Your task to perform on an android device: stop showing notifications on the lock screen Image 0: 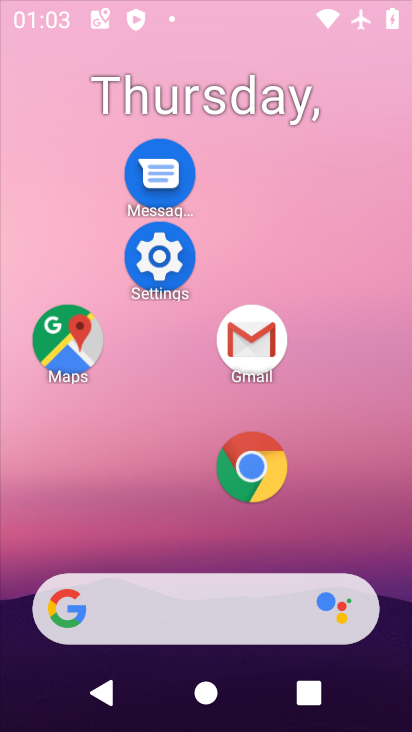
Step 0: click (237, 141)
Your task to perform on an android device: stop showing notifications on the lock screen Image 1: 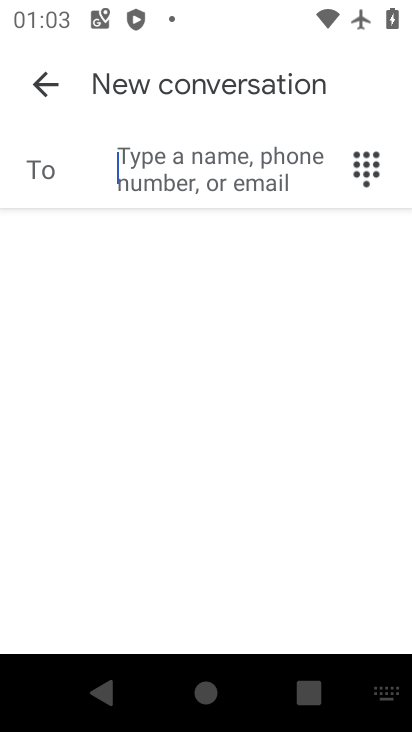
Step 1: drag from (202, 555) to (272, 248)
Your task to perform on an android device: stop showing notifications on the lock screen Image 2: 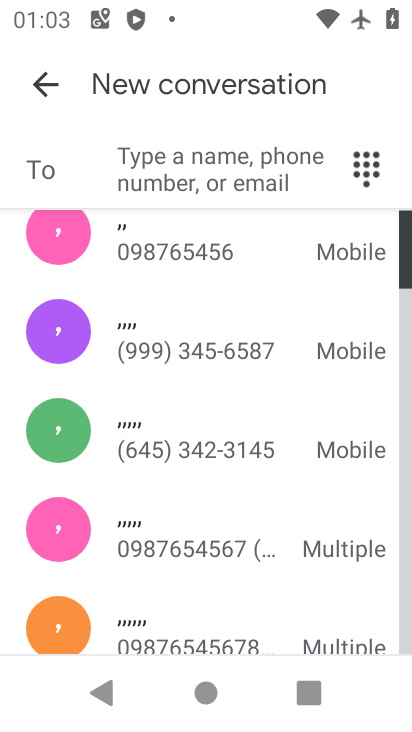
Step 2: press home button
Your task to perform on an android device: stop showing notifications on the lock screen Image 3: 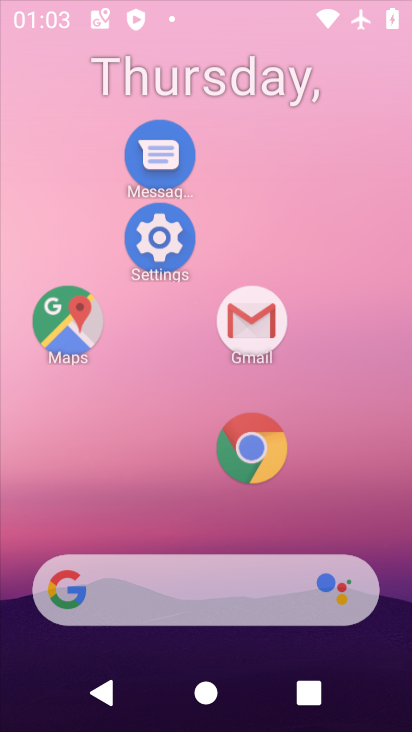
Step 3: drag from (190, 605) to (232, 174)
Your task to perform on an android device: stop showing notifications on the lock screen Image 4: 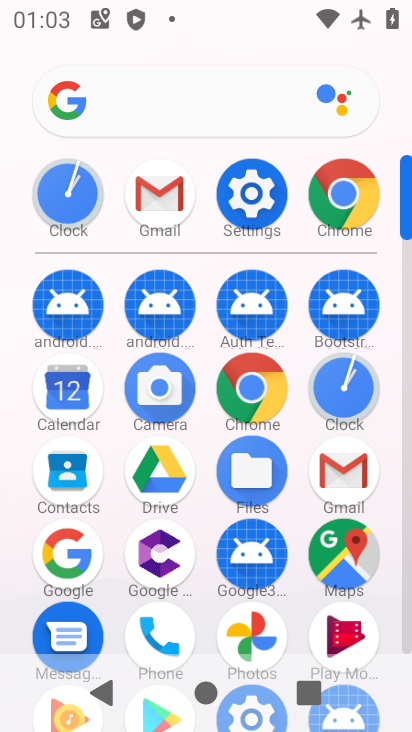
Step 4: click (244, 174)
Your task to perform on an android device: stop showing notifications on the lock screen Image 5: 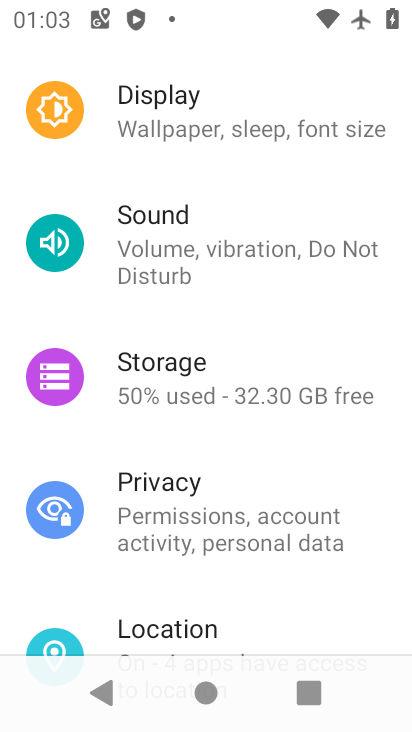
Step 5: click (187, 141)
Your task to perform on an android device: stop showing notifications on the lock screen Image 6: 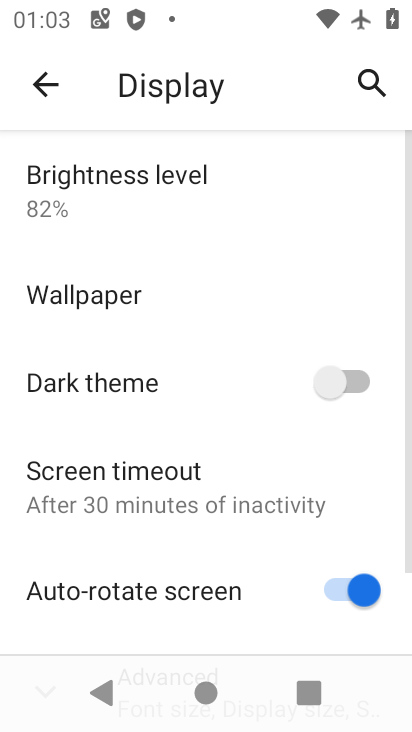
Step 6: click (168, 484)
Your task to perform on an android device: stop showing notifications on the lock screen Image 7: 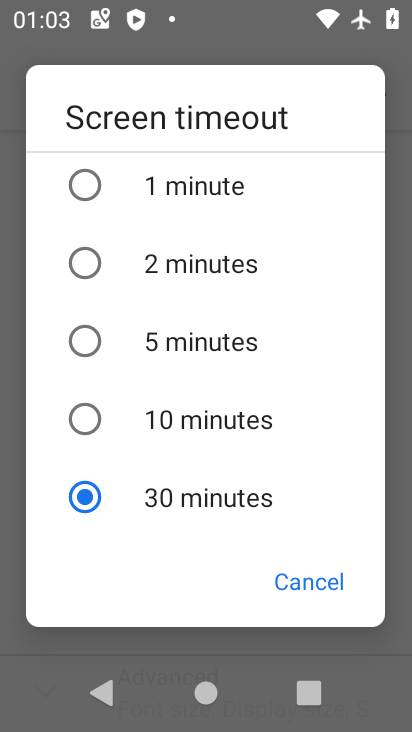
Step 7: press back button
Your task to perform on an android device: stop showing notifications on the lock screen Image 8: 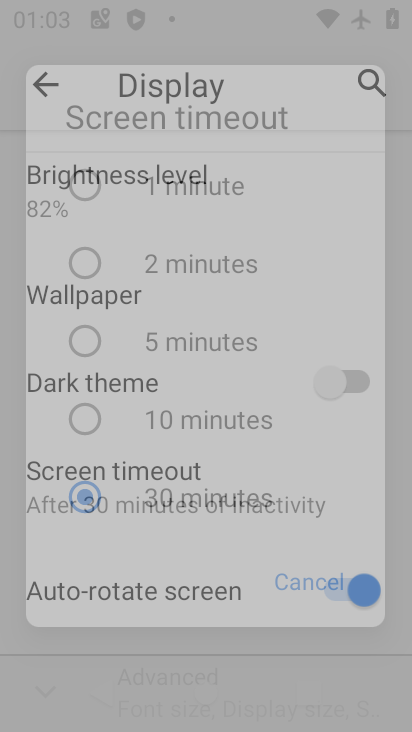
Step 8: press home button
Your task to perform on an android device: stop showing notifications on the lock screen Image 9: 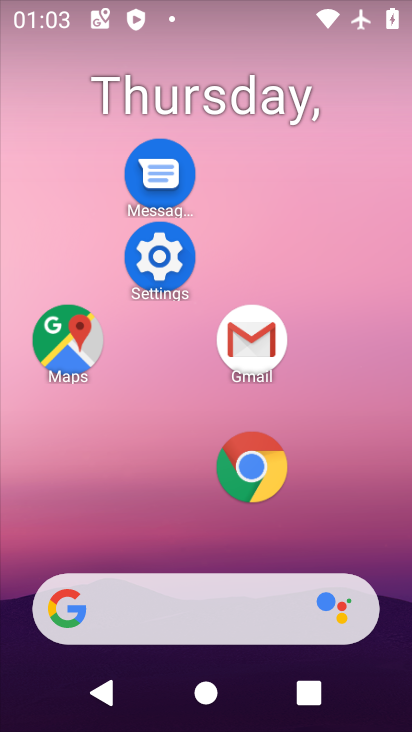
Step 9: click (158, 262)
Your task to perform on an android device: stop showing notifications on the lock screen Image 10: 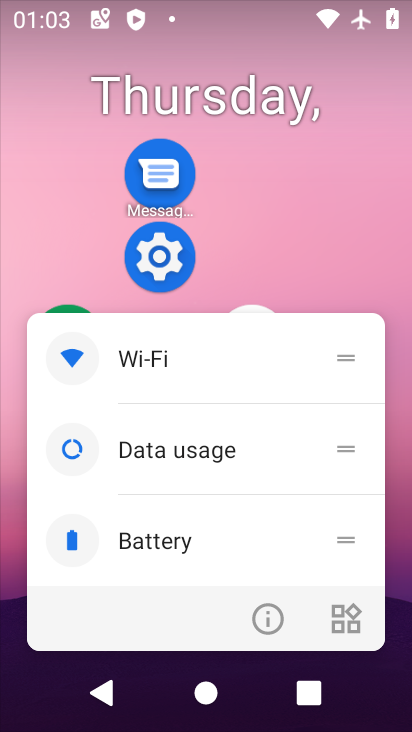
Step 10: click (270, 624)
Your task to perform on an android device: stop showing notifications on the lock screen Image 11: 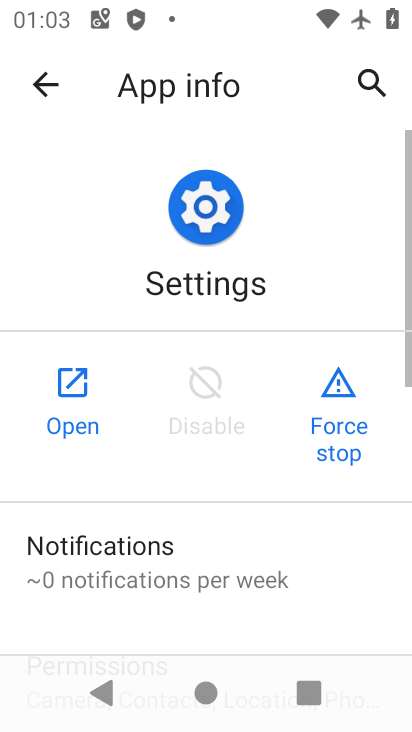
Step 11: drag from (199, 522) to (225, 261)
Your task to perform on an android device: stop showing notifications on the lock screen Image 12: 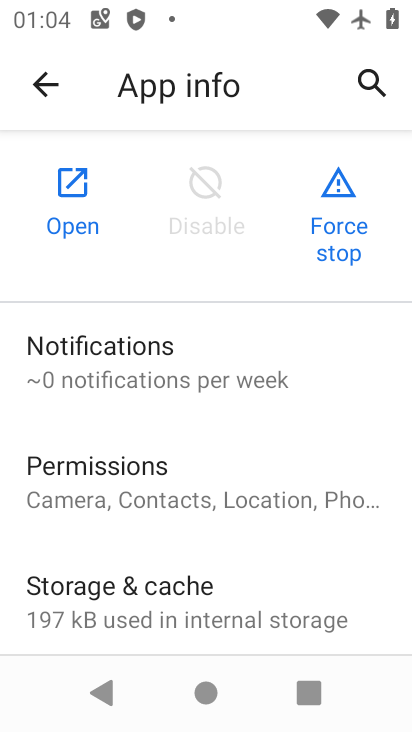
Step 12: click (82, 199)
Your task to perform on an android device: stop showing notifications on the lock screen Image 13: 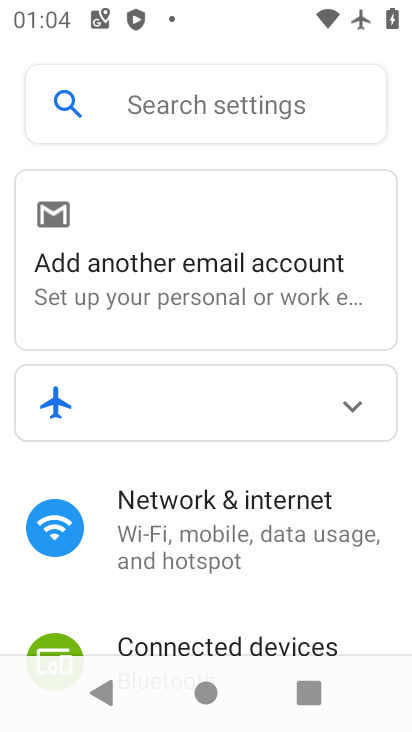
Step 13: click (216, 587)
Your task to perform on an android device: stop showing notifications on the lock screen Image 14: 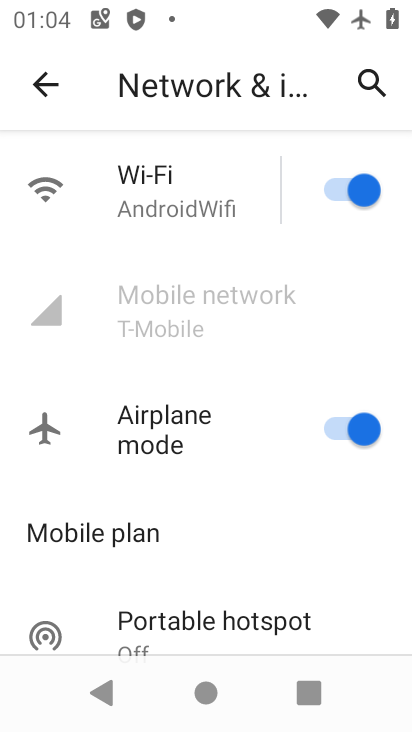
Step 14: drag from (203, 569) to (239, 311)
Your task to perform on an android device: stop showing notifications on the lock screen Image 15: 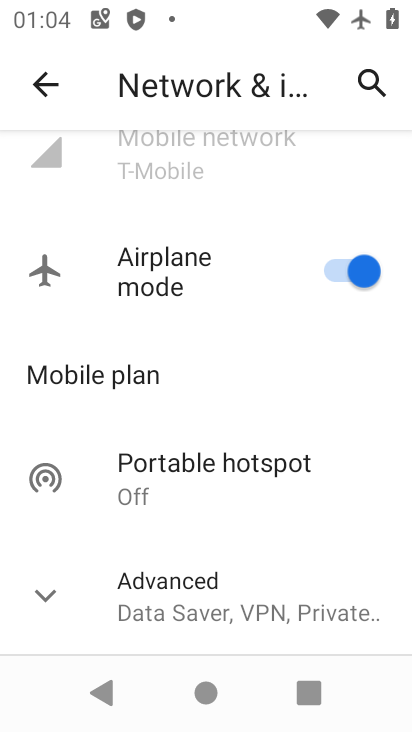
Step 15: click (38, 74)
Your task to perform on an android device: stop showing notifications on the lock screen Image 16: 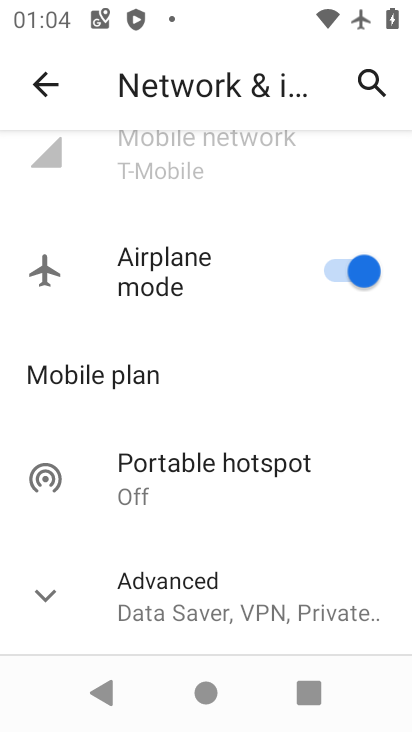
Step 16: drag from (166, 366) to (192, 93)
Your task to perform on an android device: stop showing notifications on the lock screen Image 17: 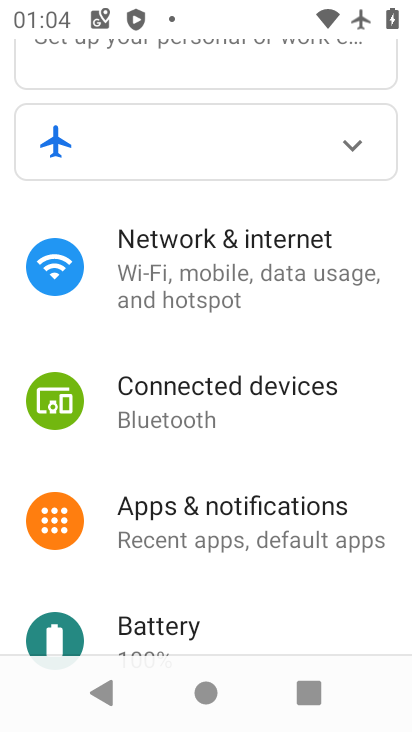
Step 17: click (207, 530)
Your task to perform on an android device: stop showing notifications on the lock screen Image 18: 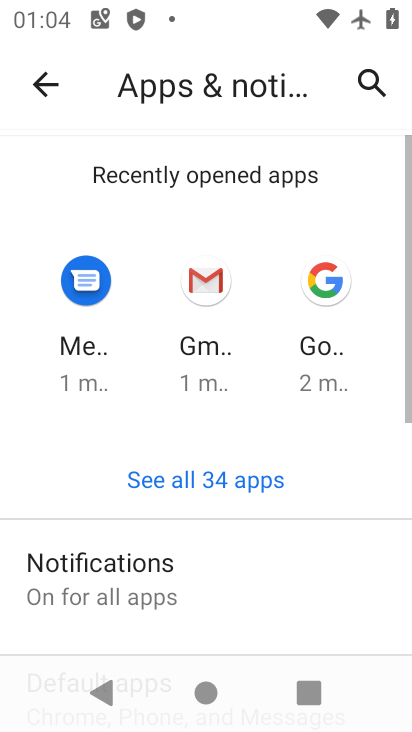
Step 18: click (183, 561)
Your task to perform on an android device: stop showing notifications on the lock screen Image 19: 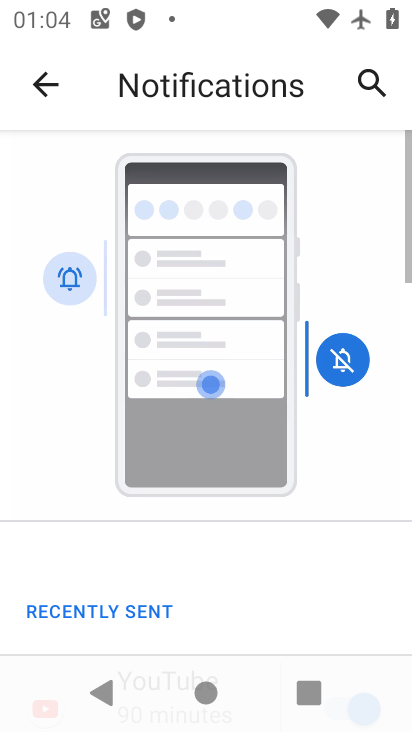
Step 19: drag from (251, 614) to (351, 189)
Your task to perform on an android device: stop showing notifications on the lock screen Image 20: 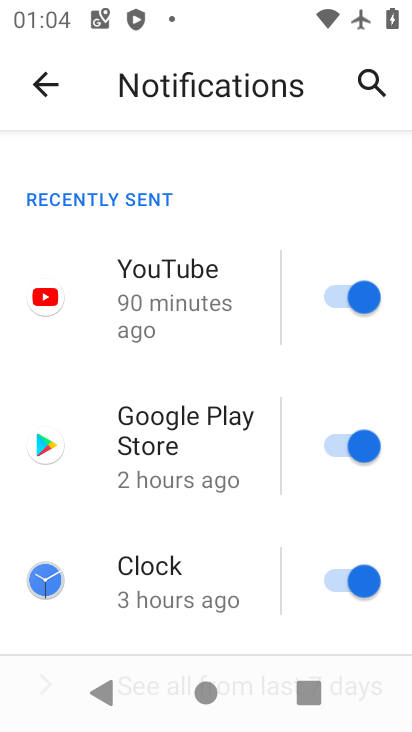
Step 20: drag from (227, 584) to (251, 173)
Your task to perform on an android device: stop showing notifications on the lock screen Image 21: 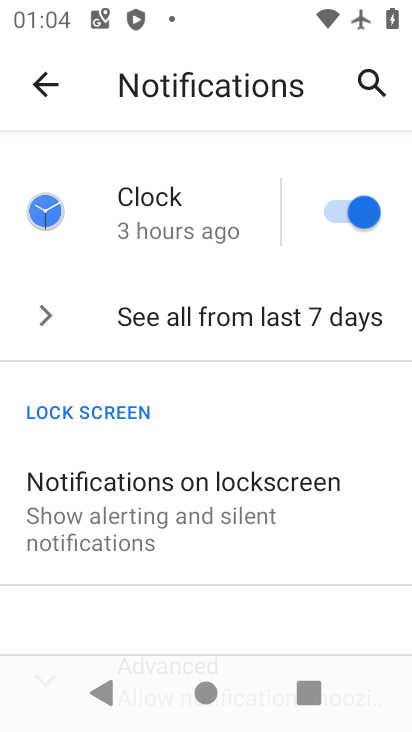
Step 21: click (192, 521)
Your task to perform on an android device: stop showing notifications on the lock screen Image 22: 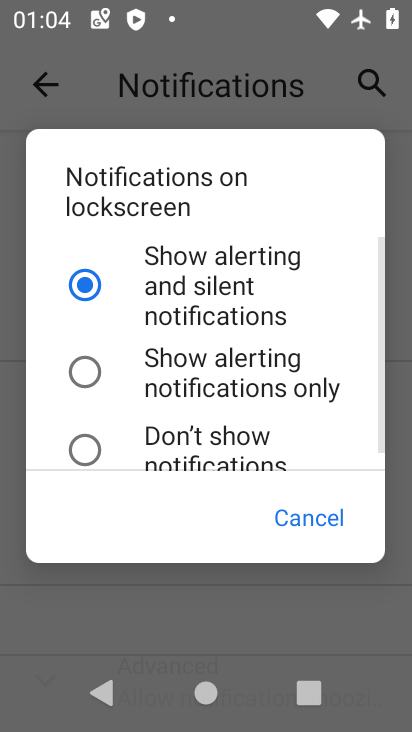
Step 22: click (137, 387)
Your task to perform on an android device: stop showing notifications on the lock screen Image 23: 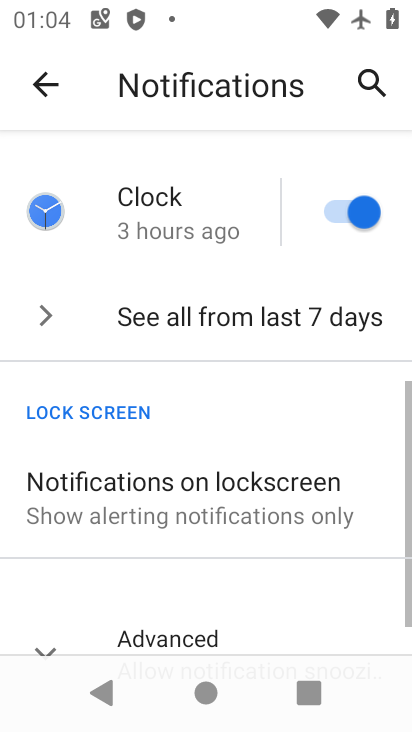
Step 23: task complete